Your task to perform on an android device: turn on bluetooth scan Image 0: 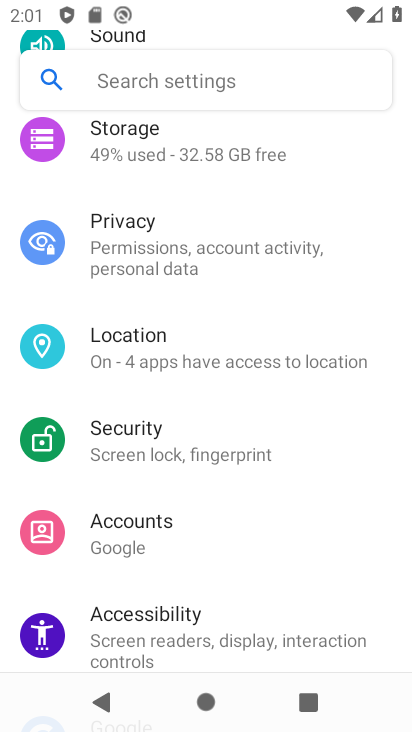
Step 0: press home button
Your task to perform on an android device: turn on bluetooth scan Image 1: 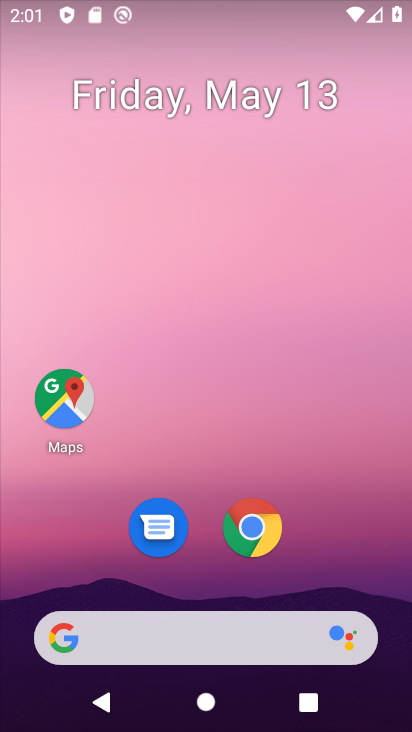
Step 1: drag from (368, 555) to (364, 93)
Your task to perform on an android device: turn on bluetooth scan Image 2: 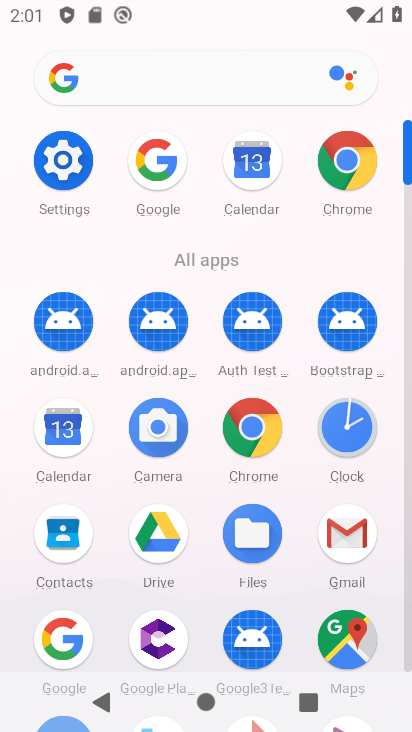
Step 2: click (64, 168)
Your task to perform on an android device: turn on bluetooth scan Image 3: 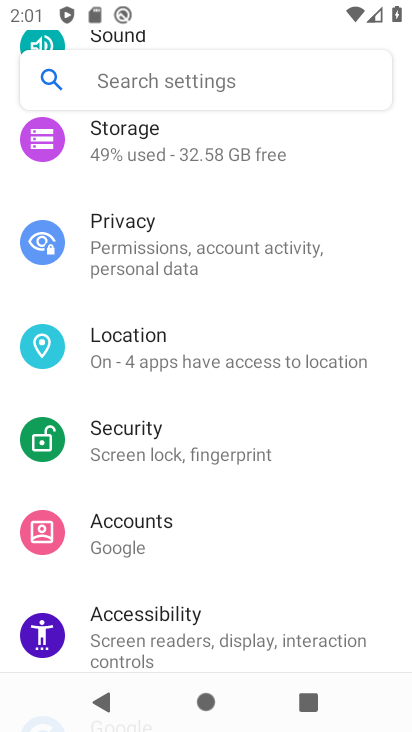
Step 3: drag from (356, 542) to (341, 292)
Your task to perform on an android device: turn on bluetooth scan Image 4: 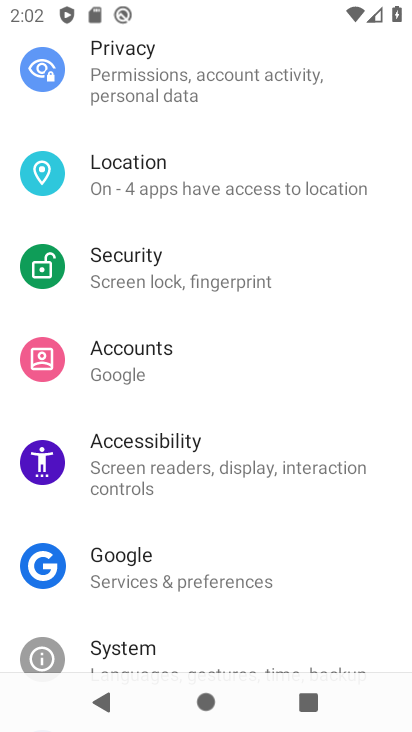
Step 4: drag from (235, 206) to (281, 585)
Your task to perform on an android device: turn on bluetooth scan Image 5: 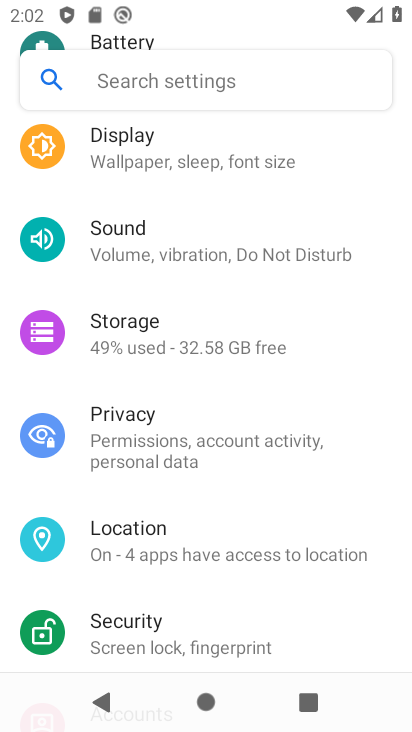
Step 5: drag from (322, 616) to (318, 287)
Your task to perform on an android device: turn on bluetooth scan Image 6: 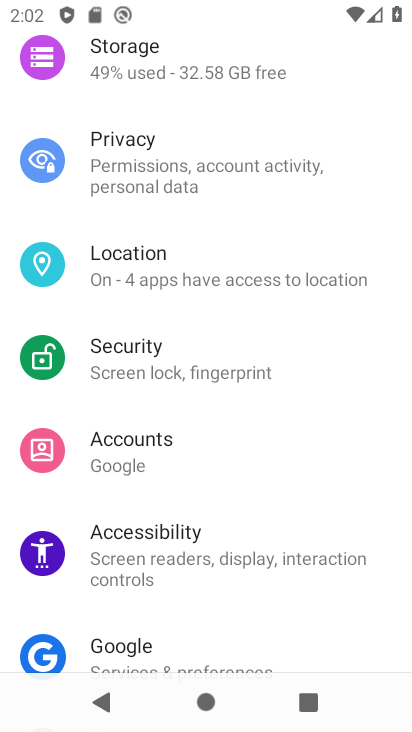
Step 6: drag from (220, 143) to (253, 540)
Your task to perform on an android device: turn on bluetooth scan Image 7: 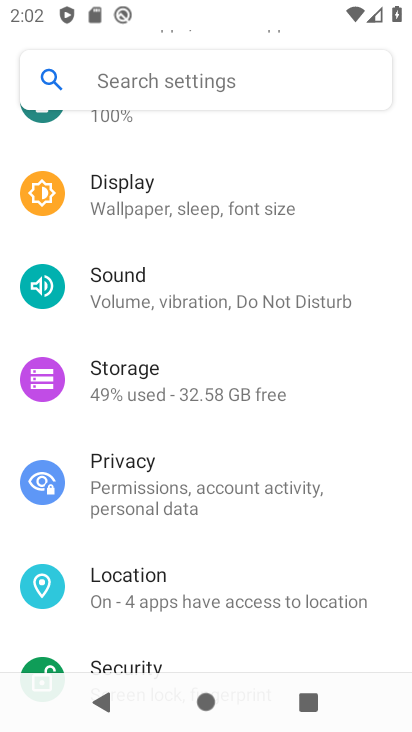
Step 7: drag from (202, 217) to (248, 579)
Your task to perform on an android device: turn on bluetooth scan Image 8: 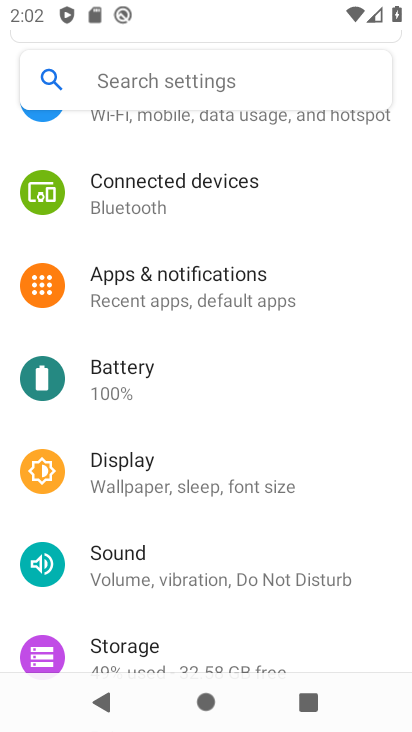
Step 8: drag from (196, 221) to (292, 214)
Your task to perform on an android device: turn on bluetooth scan Image 9: 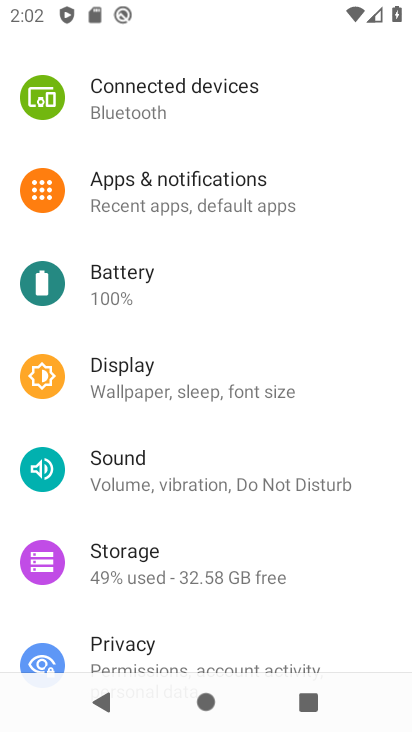
Step 9: drag from (281, 565) to (353, 227)
Your task to perform on an android device: turn on bluetooth scan Image 10: 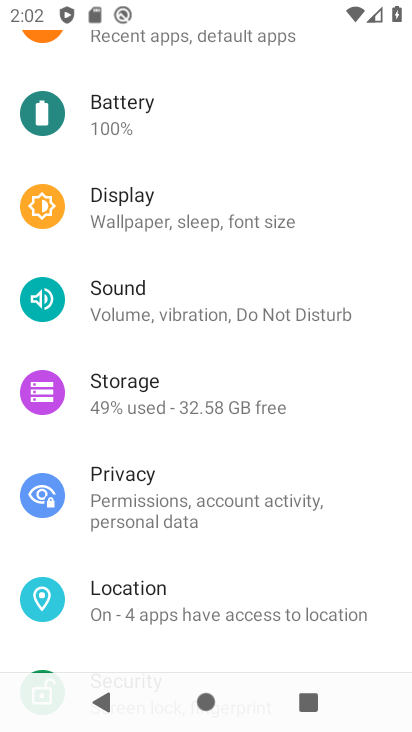
Step 10: drag from (283, 593) to (321, 282)
Your task to perform on an android device: turn on bluetooth scan Image 11: 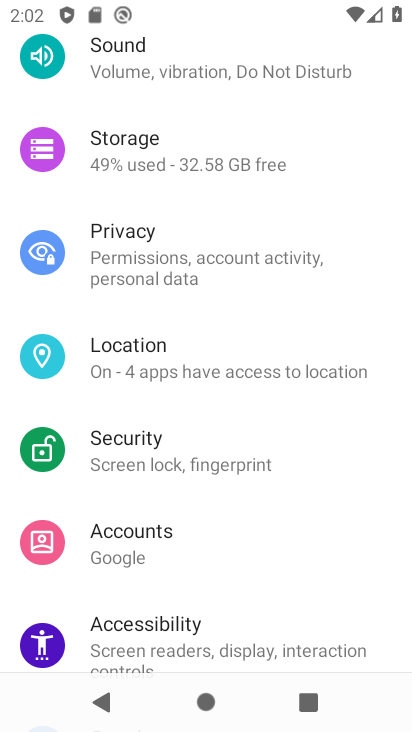
Step 11: click (193, 360)
Your task to perform on an android device: turn on bluetooth scan Image 12: 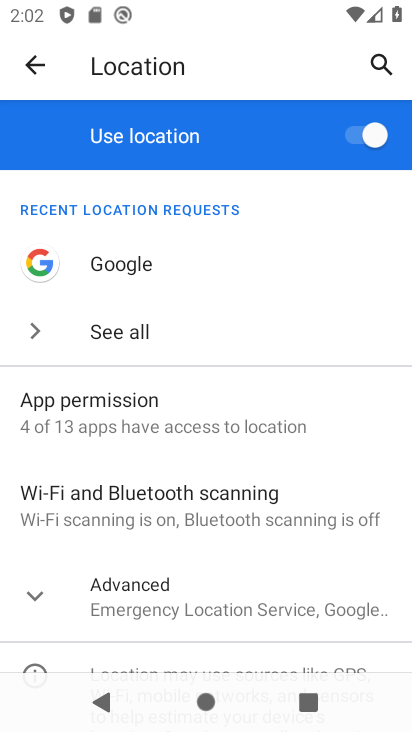
Step 12: drag from (235, 535) to (294, 199)
Your task to perform on an android device: turn on bluetooth scan Image 13: 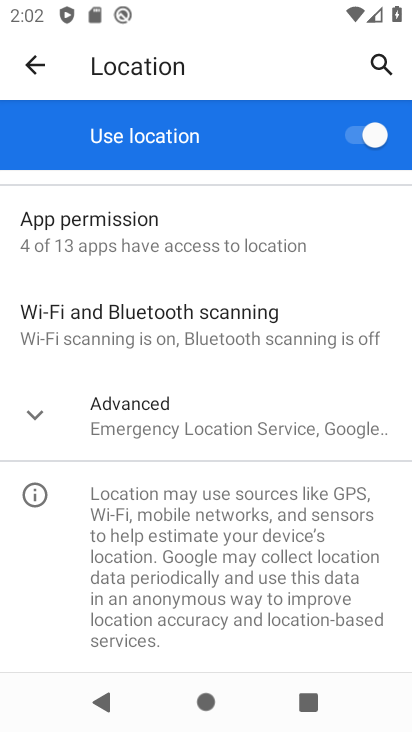
Step 13: click (186, 417)
Your task to perform on an android device: turn on bluetooth scan Image 14: 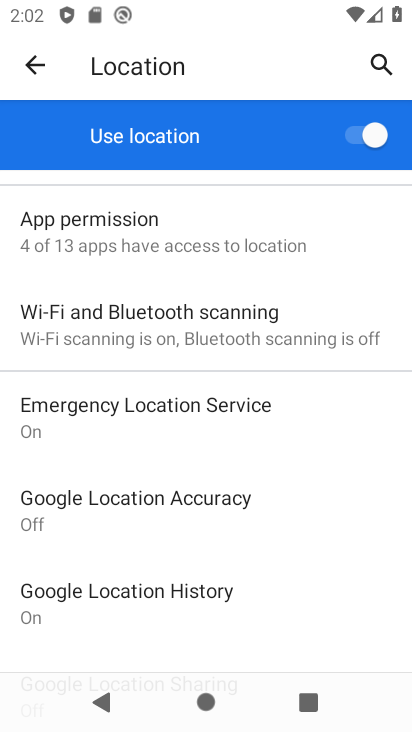
Step 14: drag from (233, 535) to (272, 347)
Your task to perform on an android device: turn on bluetooth scan Image 15: 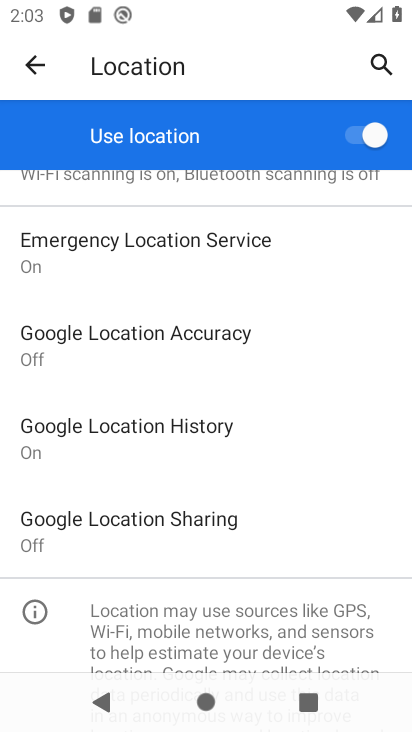
Step 15: drag from (312, 423) to (327, 317)
Your task to perform on an android device: turn on bluetooth scan Image 16: 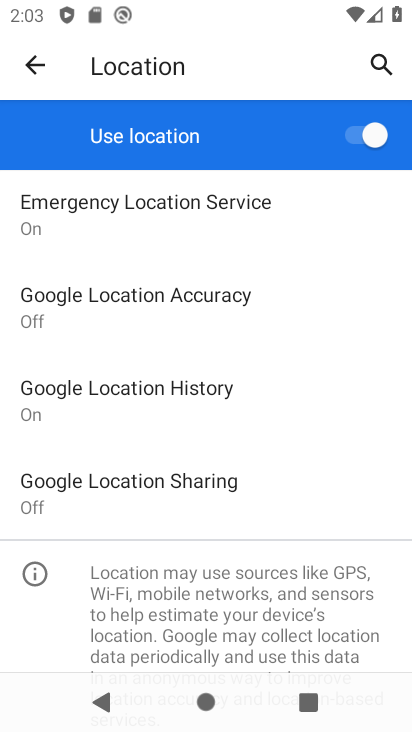
Step 16: drag from (310, 584) to (318, 269)
Your task to perform on an android device: turn on bluetooth scan Image 17: 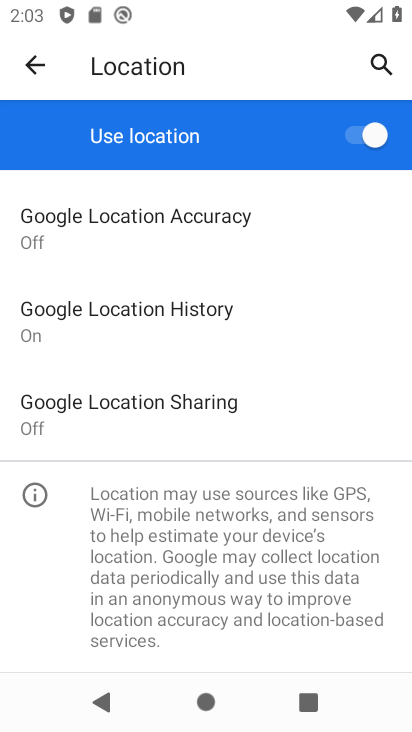
Step 17: drag from (316, 198) to (324, 654)
Your task to perform on an android device: turn on bluetooth scan Image 18: 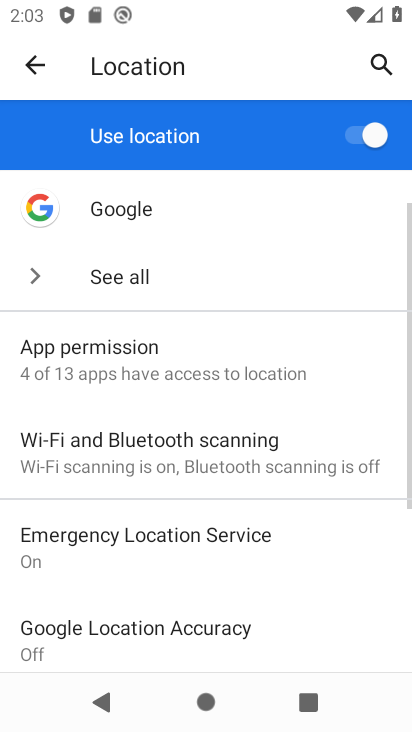
Step 18: drag from (263, 321) to (254, 516)
Your task to perform on an android device: turn on bluetooth scan Image 19: 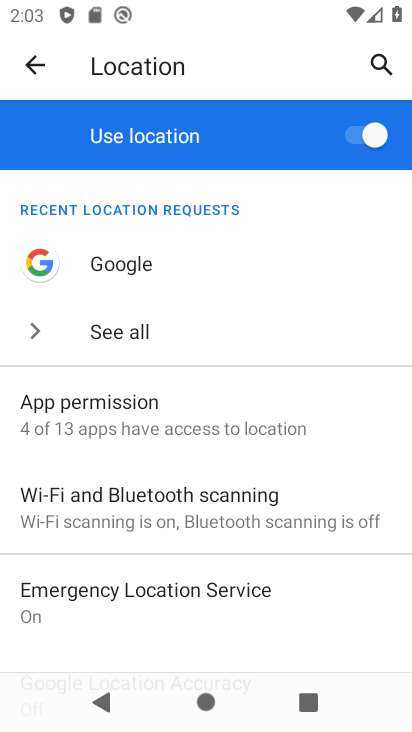
Step 19: click (194, 516)
Your task to perform on an android device: turn on bluetooth scan Image 20: 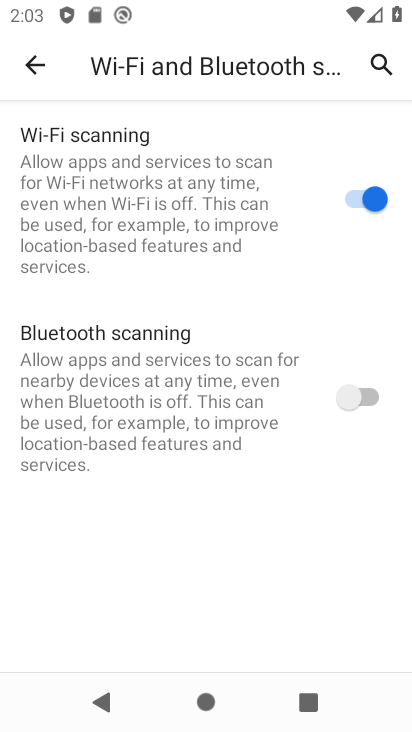
Step 20: click (368, 399)
Your task to perform on an android device: turn on bluetooth scan Image 21: 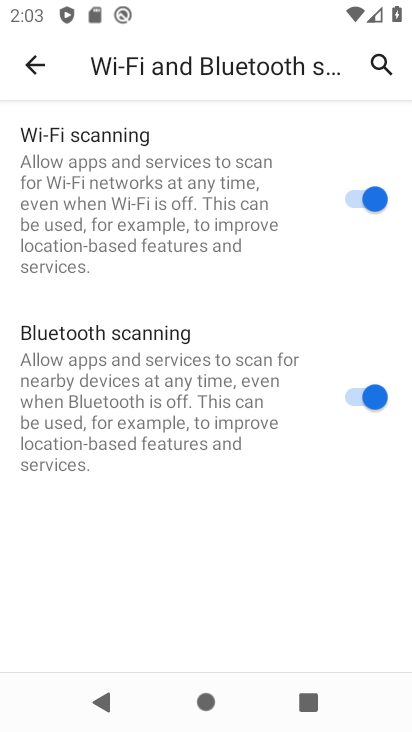
Step 21: task complete